Your task to perform on an android device: check data usage Image 0: 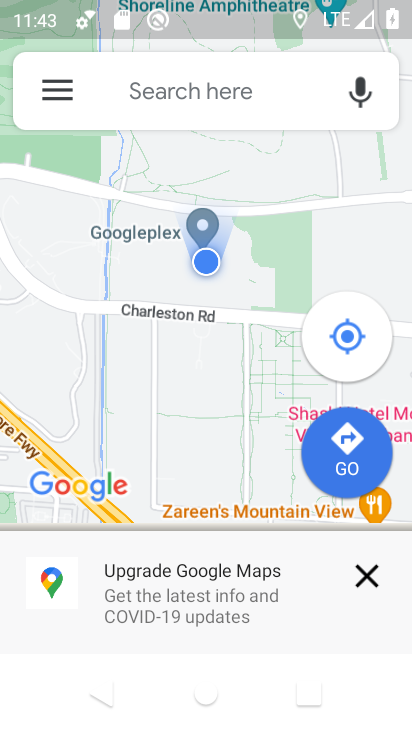
Step 0: press home button
Your task to perform on an android device: check data usage Image 1: 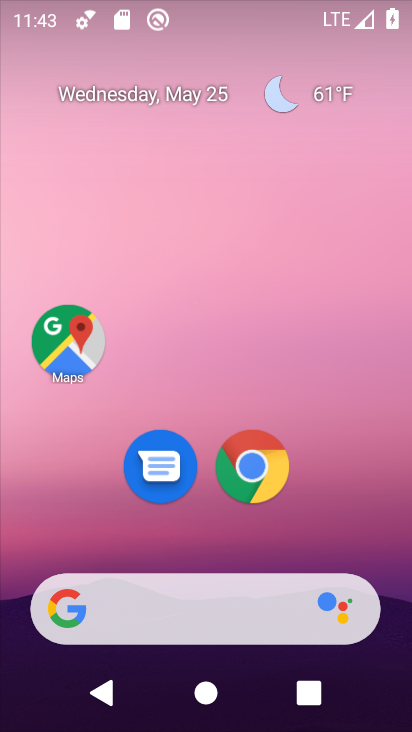
Step 1: drag from (167, 539) to (287, 104)
Your task to perform on an android device: check data usage Image 2: 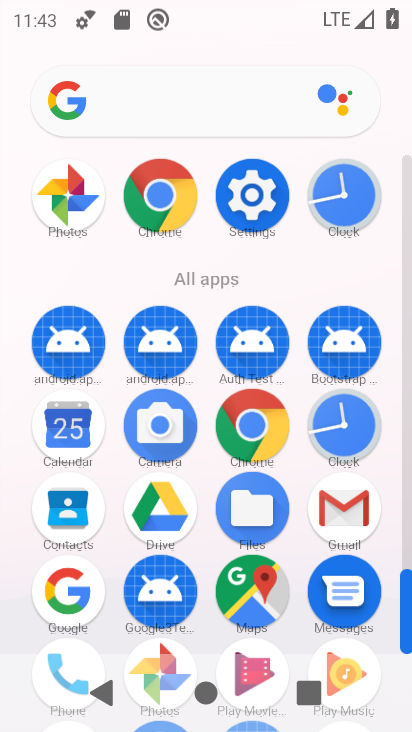
Step 2: click (269, 211)
Your task to perform on an android device: check data usage Image 3: 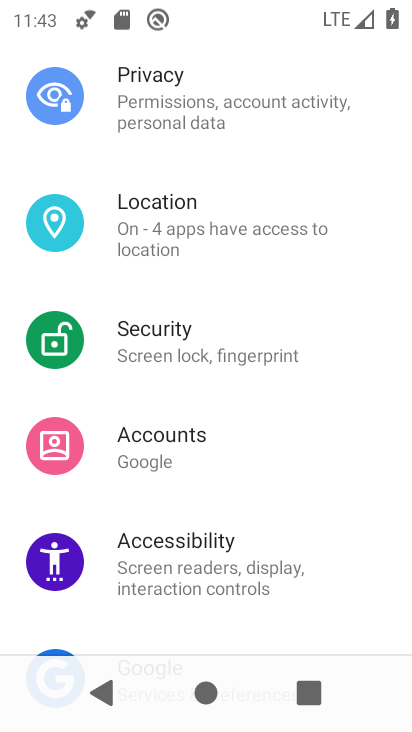
Step 3: drag from (221, 197) to (221, 512)
Your task to perform on an android device: check data usage Image 4: 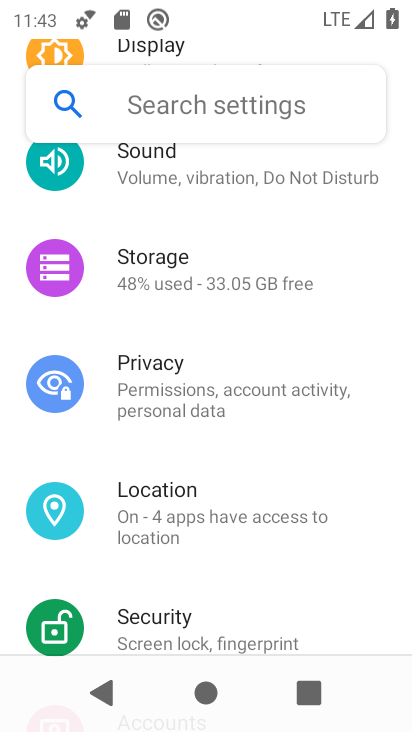
Step 4: drag from (236, 246) to (230, 531)
Your task to perform on an android device: check data usage Image 5: 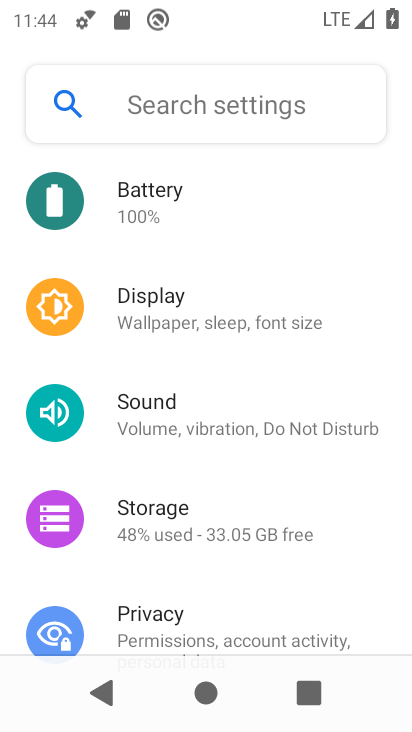
Step 5: drag from (186, 272) to (209, 618)
Your task to perform on an android device: check data usage Image 6: 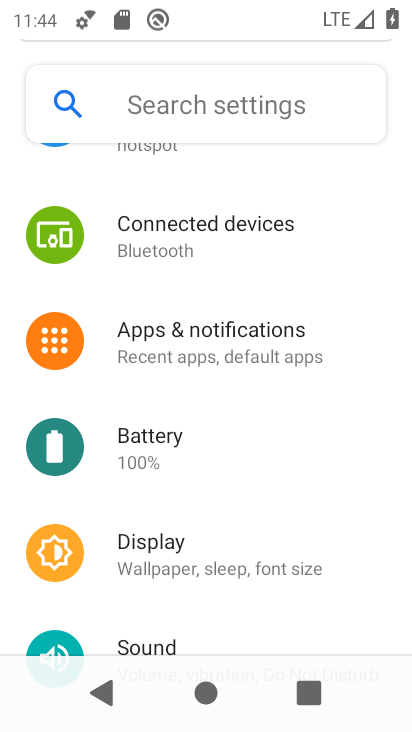
Step 6: drag from (215, 250) to (220, 564)
Your task to perform on an android device: check data usage Image 7: 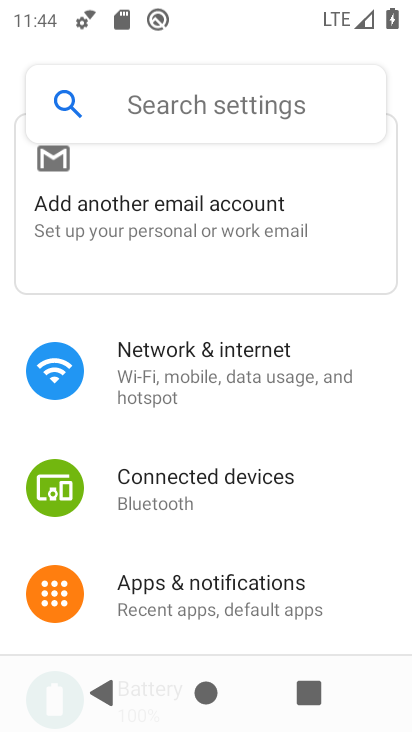
Step 7: click (202, 382)
Your task to perform on an android device: check data usage Image 8: 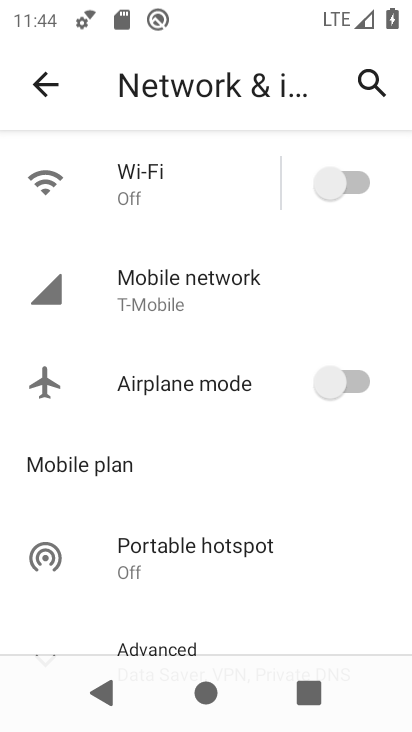
Step 8: click (218, 294)
Your task to perform on an android device: check data usage Image 9: 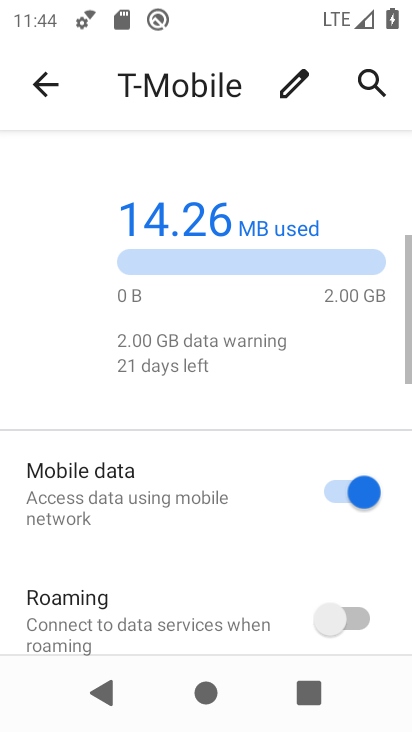
Step 9: drag from (289, 577) to (327, 328)
Your task to perform on an android device: check data usage Image 10: 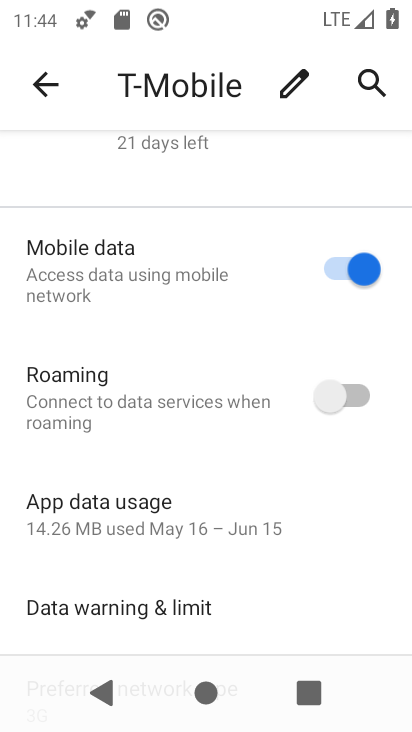
Step 10: click (209, 527)
Your task to perform on an android device: check data usage Image 11: 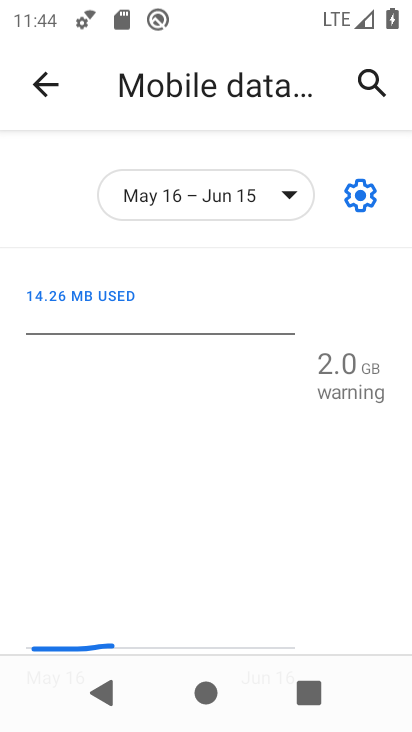
Step 11: task complete